Your task to perform on an android device: Go to Yahoo.com Image 0: 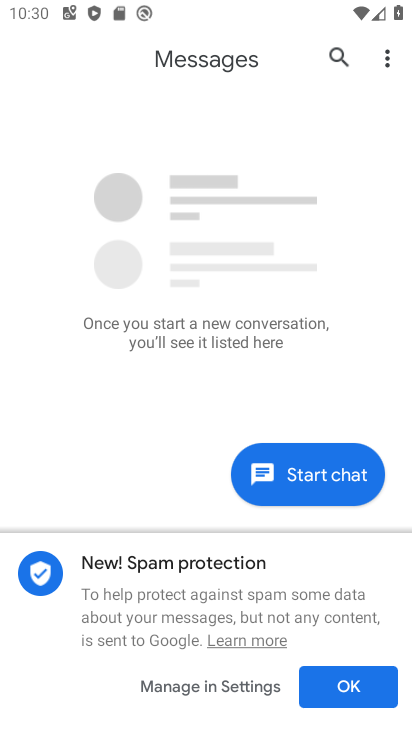
Step 0: press home button
Your task to perform on an android device: Go to Yahoo.com Image 1: 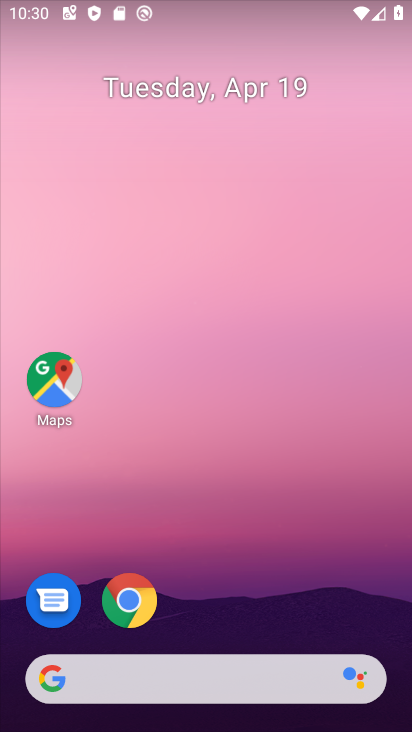
Step 1: click (132, 591)
Your task to perform on an android device: Go to Yahoo.com Image 2: 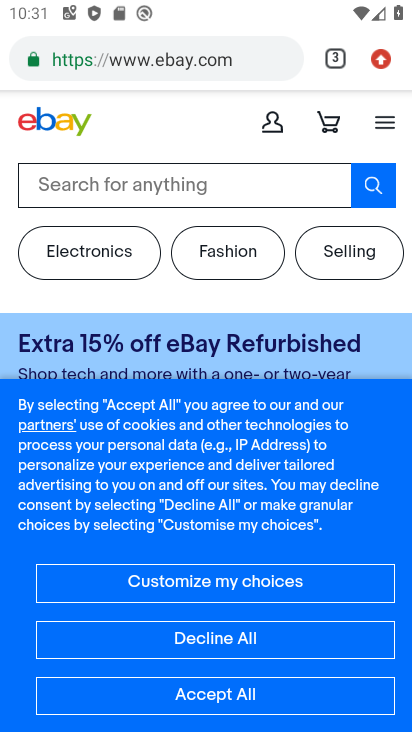
Step 2: click (165, 63)
Your task to perform on an android device: Go to Yahoo.com Image 3: 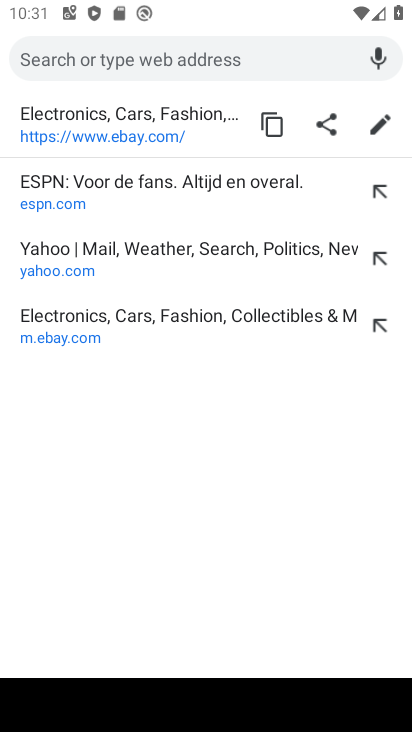
Step 3: type "yahoo.com"
Your task to perform on an android device: Go to Yahoo.com Image 4: 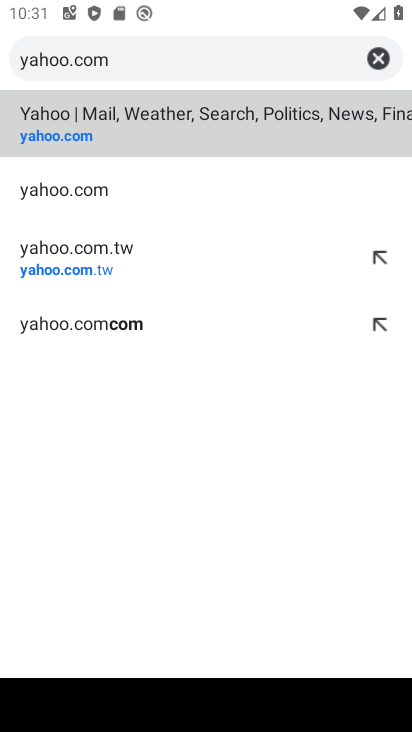
Step 4: click (47, 183)
Your task to perform on an android device: Go to Yahoo.com Image 5: 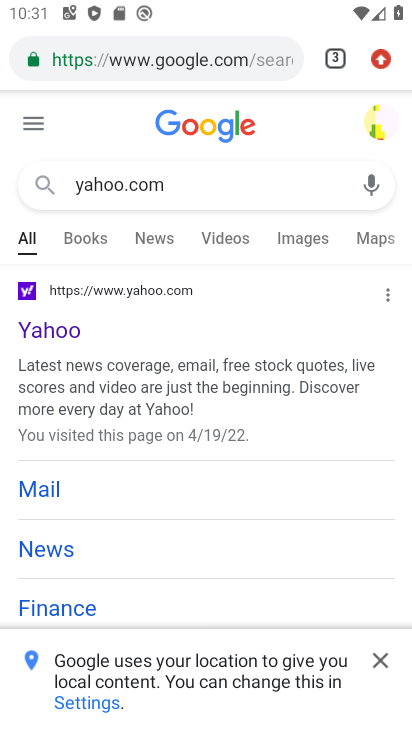
Step 5: task complete